Your task to perform on an android device: Open Android settings Image 0: 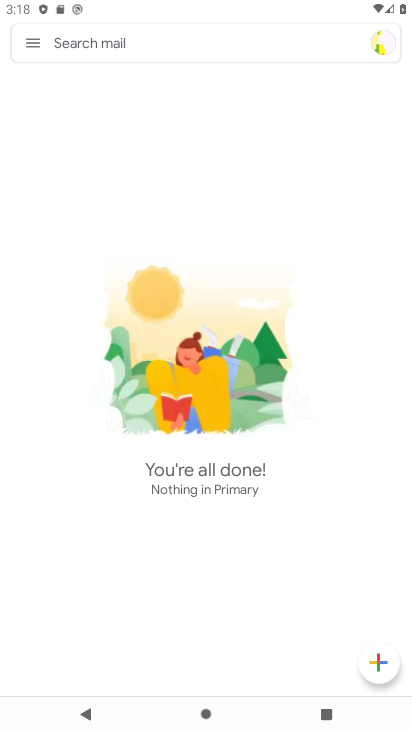
Step 0: press home button
Your task to perform on an android device: Open Android settings Image 1: 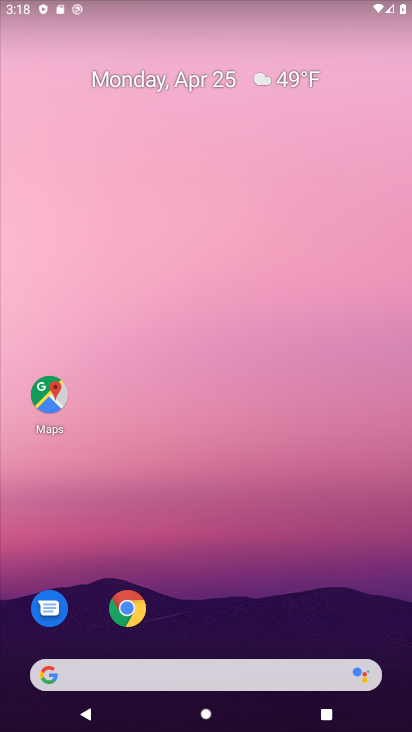
Step 1: drag from (193, 662) to (236, 199)
Your task to perform on an android device: Open Android settings Image 2: 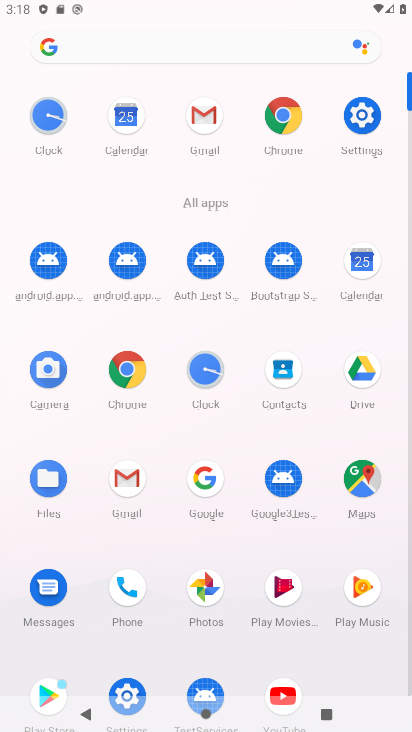
Step 2: click (370, 119)
Your task to perform on an android device: Open Android settings Image 3: 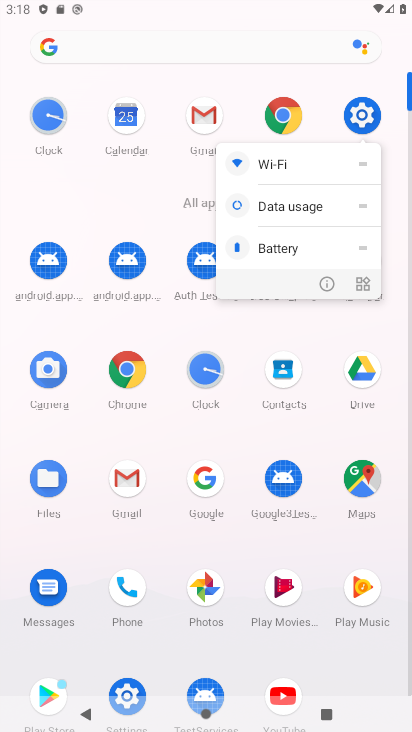
Step 3: click (131, 684)
Your task to perform on an android device: Open Android settings Image 4: 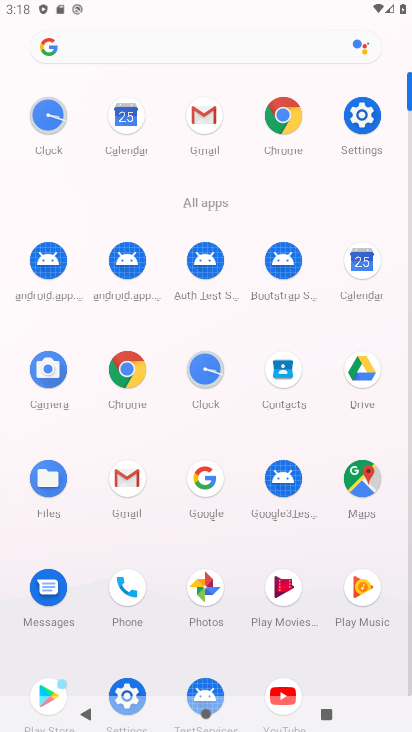
Step 4: click (126, 679)
Your task to perform on an android device: Open Android settings Image 5: 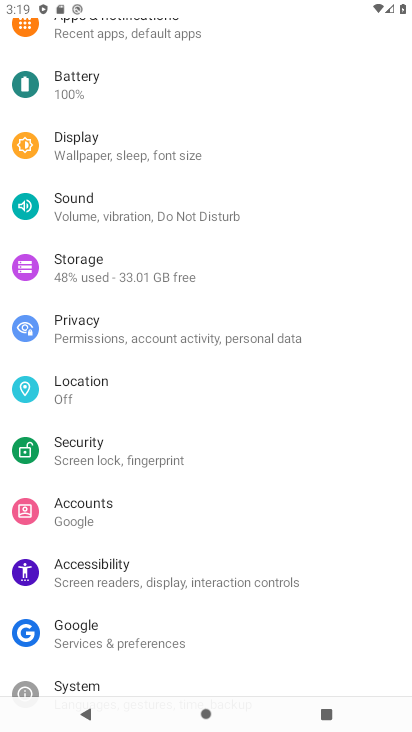
Step 5: drag from (126, 616) to (103, 25)
Your task to perform on an android device: Open Android settings Image 6: 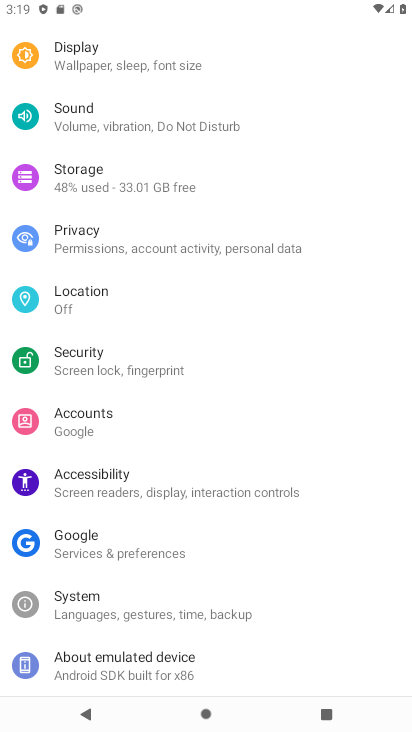
Step 6: click (115, 659)
Your task to perform on an android device: Open Android settings Image 7: 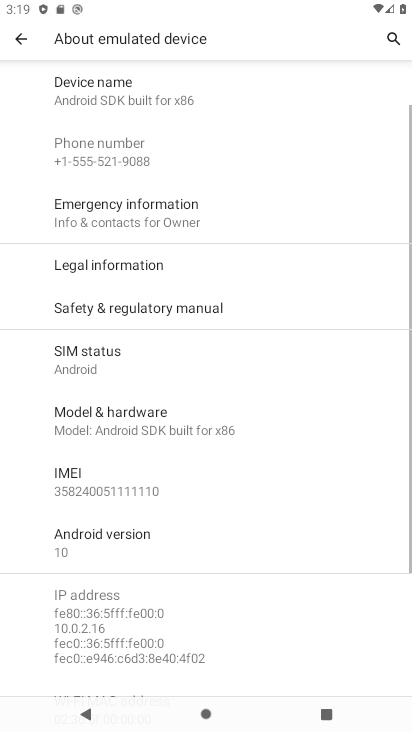
Step 7: task complete